Your task to perform on an android device: delete location history Image 0: 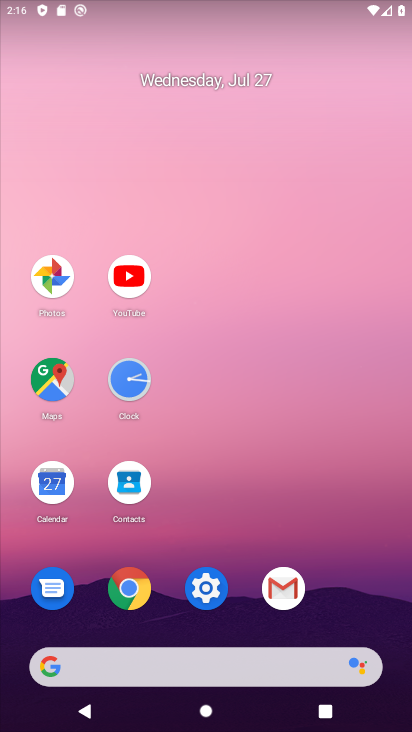
Step 0: click (44, 382)
Your task to perform on an android device: delete location history Image 1: 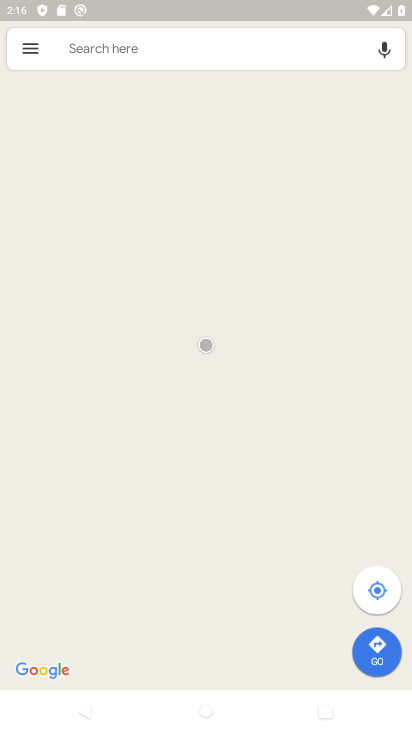
Step 1: click (23, 41)
Your task to perform on an android device: delete location history Image 2: 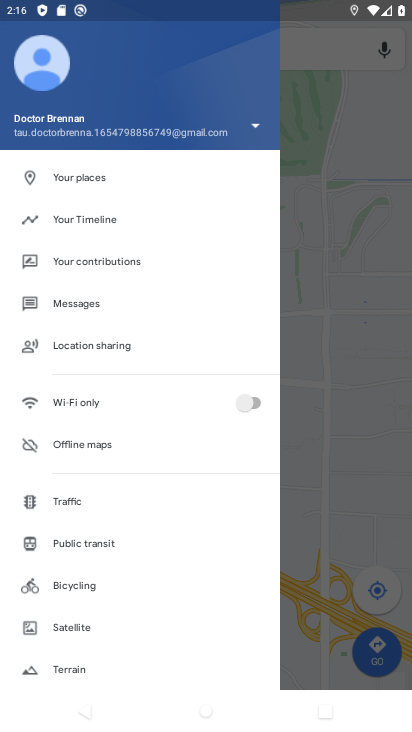
Step 2: click (86, 221)
Your task to perform on an android device: delete location history Image 3: 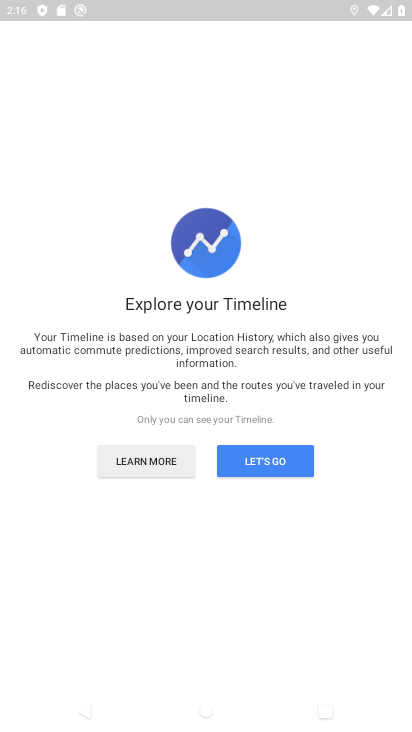
Step 3: click (238, 460)
Your task to perform on an android device: delete location history Image 4: 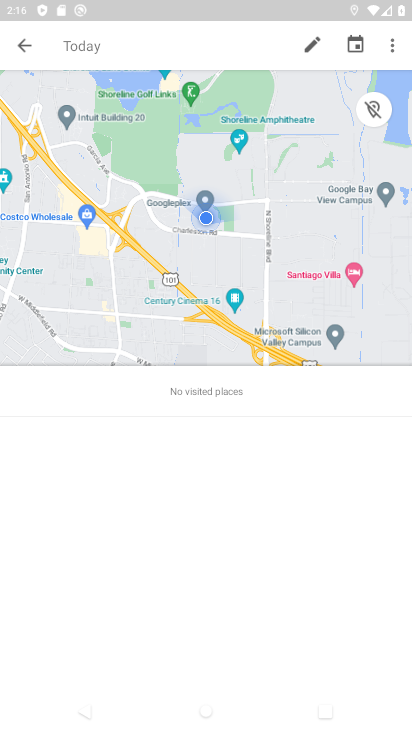
Step 4: click (391, 48)
Your task to perform on an android device: delete location history Image 5: 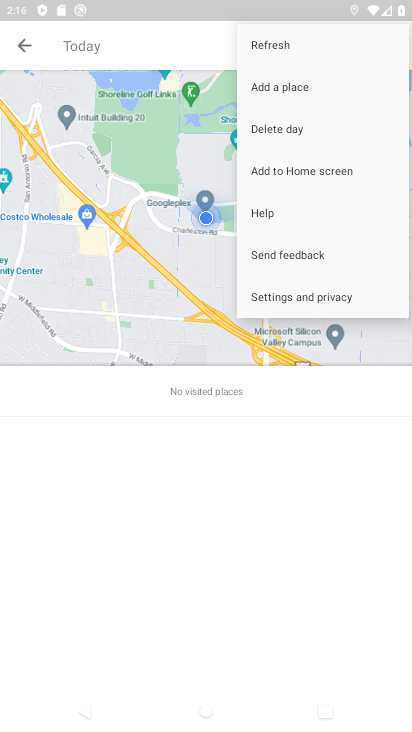
Step 5: click (316, 294)
Your task to perform on an android device: delete location history Image 6: 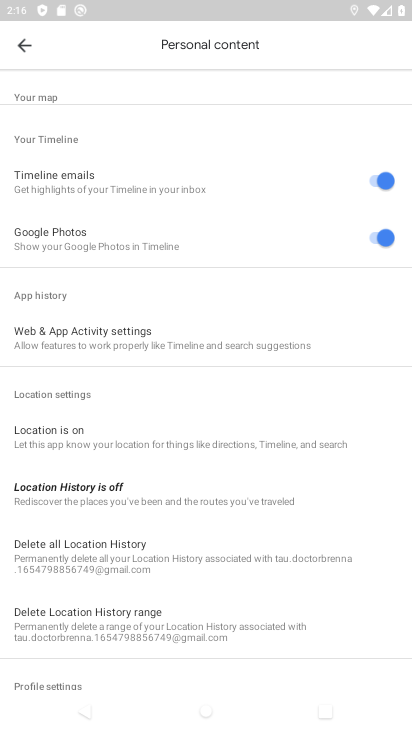
Step 6: click (101, 537)
Your task to perform on an android device: delete location history Image 7: 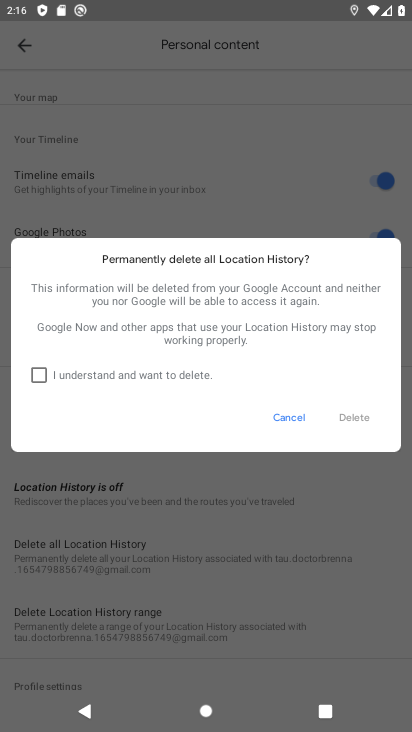
Step 7: click (38, 376)
Your task to perform on an android device: delete location history Image 8: 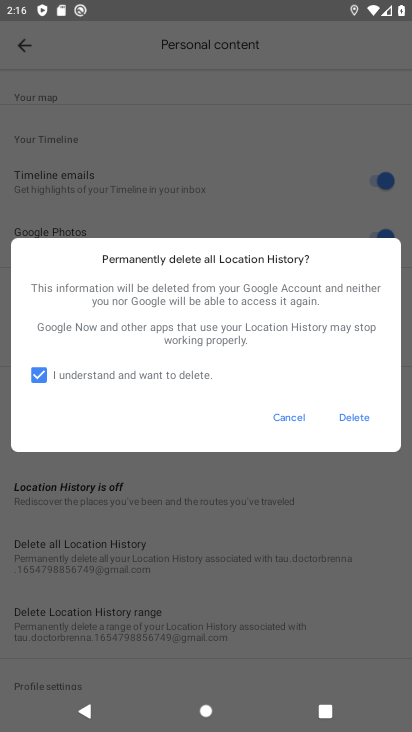
Step 8: click (346, 415)
Your task to perform on an android device: delete location history Image 9: 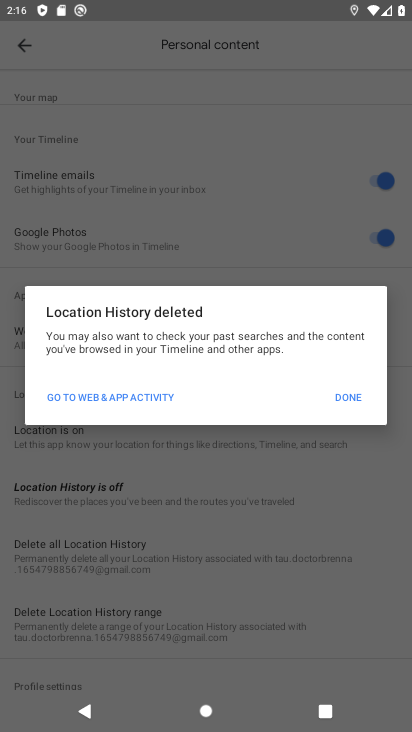
Step 9: click (348, 393)
Your task to perform on an android device: delete location history Image 10: 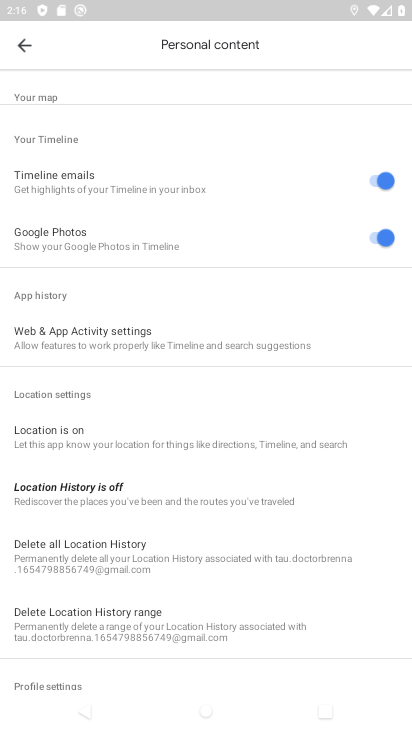
Step 10: task complete